Your task to perform on an android device: open wifi settings Image 0: 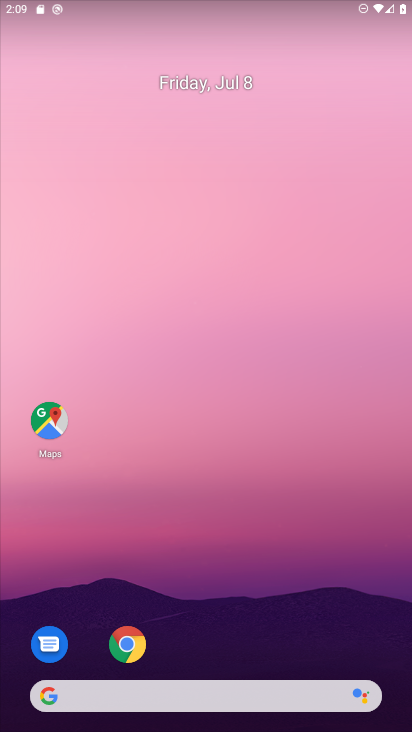
Step 0: drag from (109, 545) to (147, 120)
Your task to perform on an android device: open wifi settings Image 1: 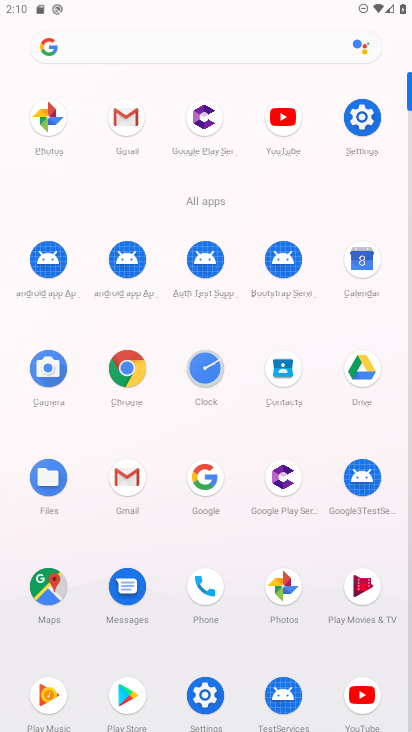
Step 1: click (347, 114)
Your task to perform on an android device: open wifi settings Image 2: 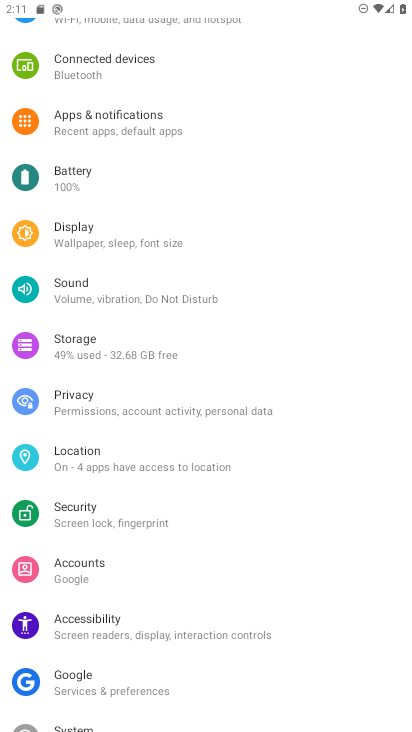
Step 2: drag from (107, 67) to (122, 316)
Your task to perform on an android device: open wifi settings Image 3: 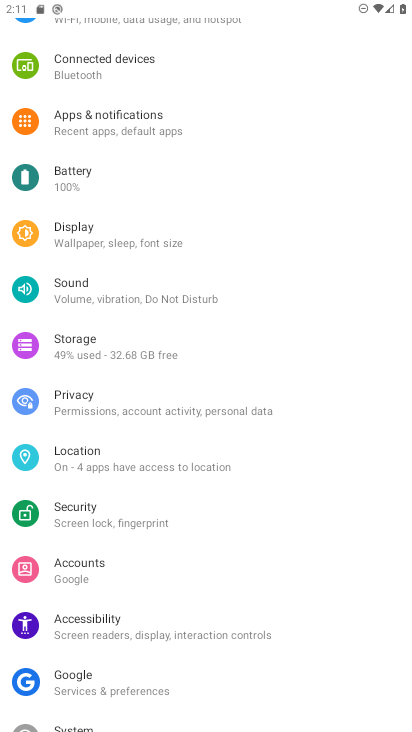
Step 3: drag from (81, 78) to (119, 558)
Your task to perform on an android device: open wifi settings Image 4: 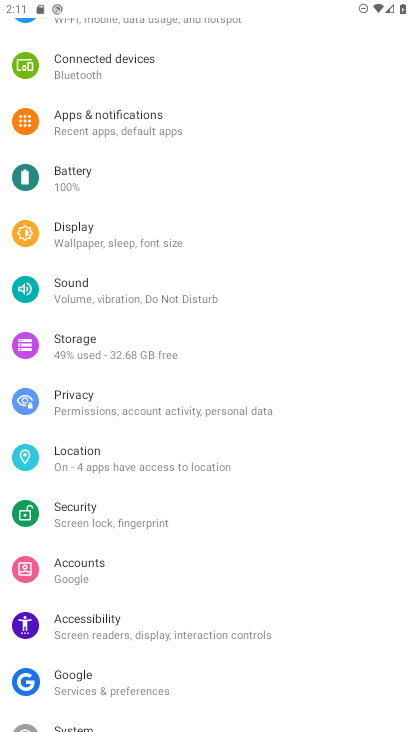
Step 4: drag from (116, 277) to (127, 501)
Your task to perform on an android device: open wifi settings Image 5: 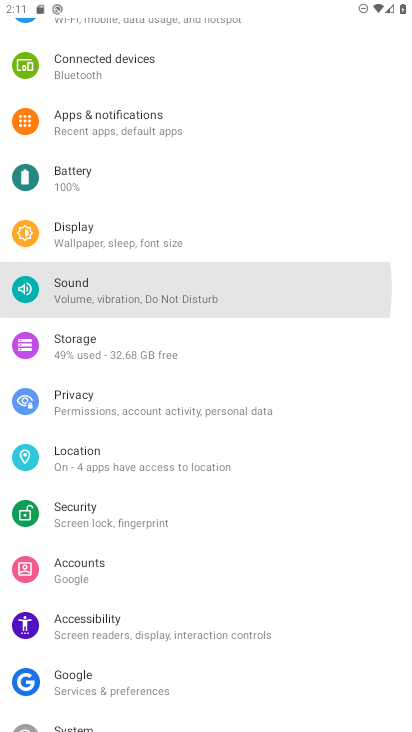
Step 5: drag from (125, 152) to (125, 423)
Your task to perform on an android device: open wifi settings Image 6: 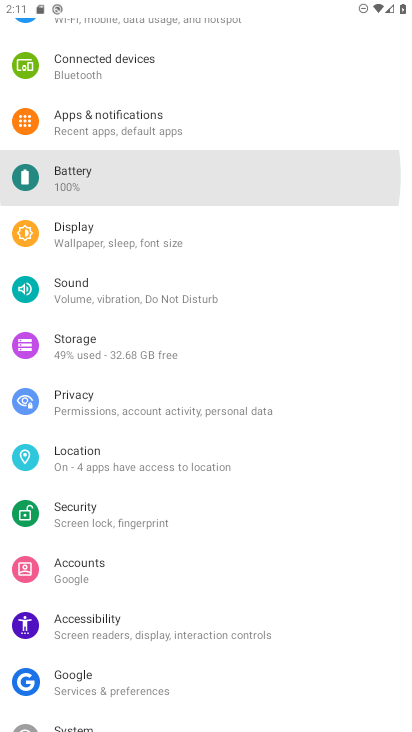
Step 6: drag from (120, 178) to (128, 452)
Your task to perform on an android device: open wifi settings Image 7: 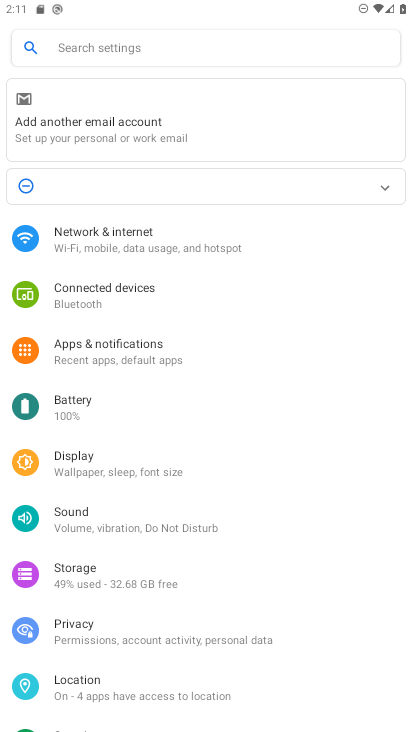
Step 7: drag from (128, 163) to (126, 370)
Your task to perform on an android device: open wifi settings Image 8: 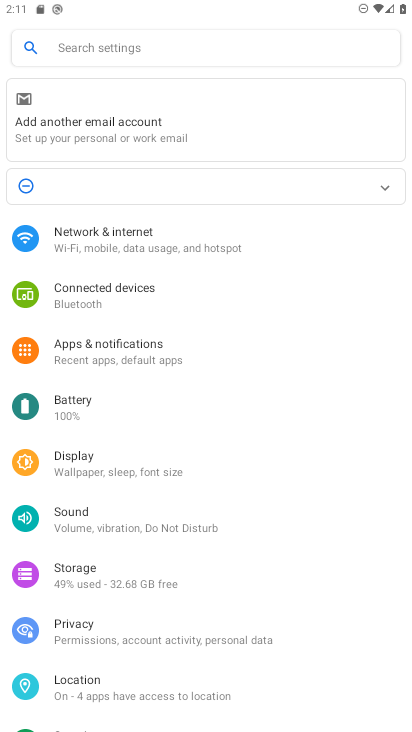
Step 8: drag from (126, 77) to (149, 314)
Your task to perform on an android device: open wifi settings Image 9: 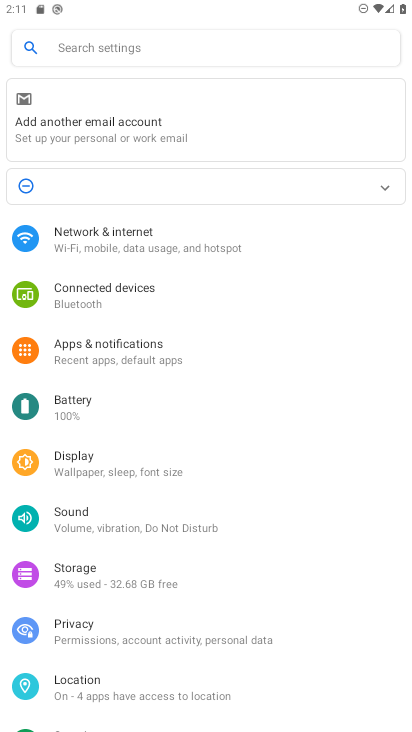
Step 9: click (100, 229)
Your task to perform on an android device: open wifi settings Image 10: 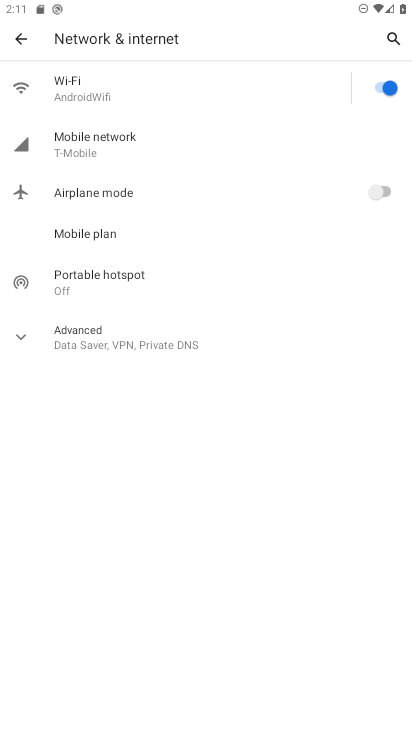
Step 10: click (161, 87)
Your task to perform on an android device: open wifi settings Image 11: 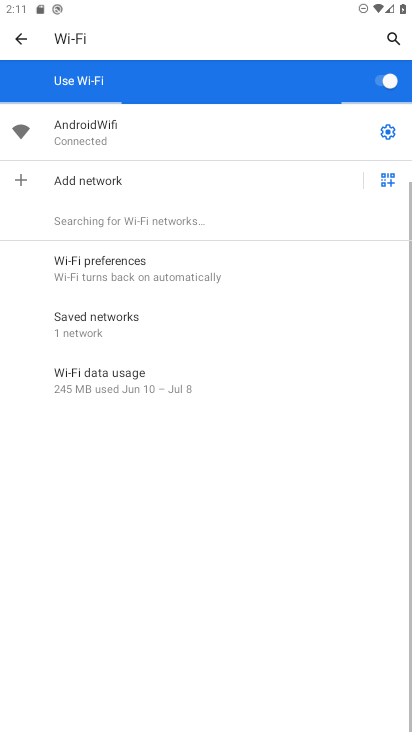
Step 11: task complete